Your task to perform on an android device: What's the weather going to be tomorrow? Image 0: 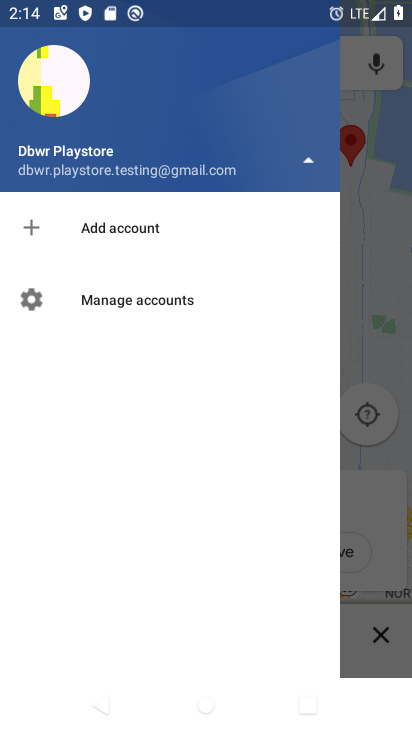
Step 0: press home button
Your task to perform on an android device: What's the weather going to be tomorrow? Image 1: 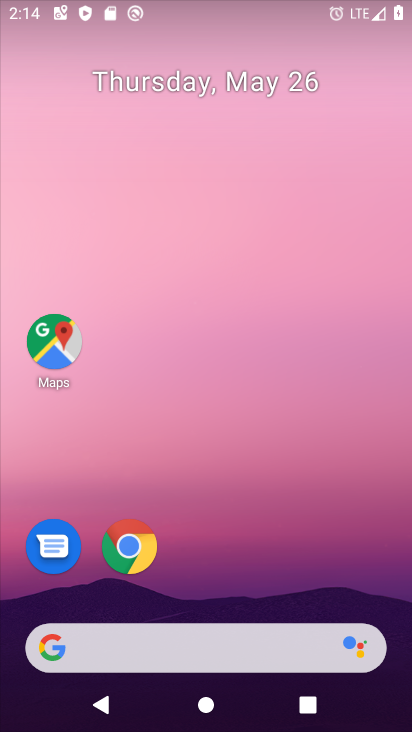
Step 1: drag from (245, 571) to (263, 84)
Your task to perform on an android device: What's the weather going to be tomorrow? Image 2: 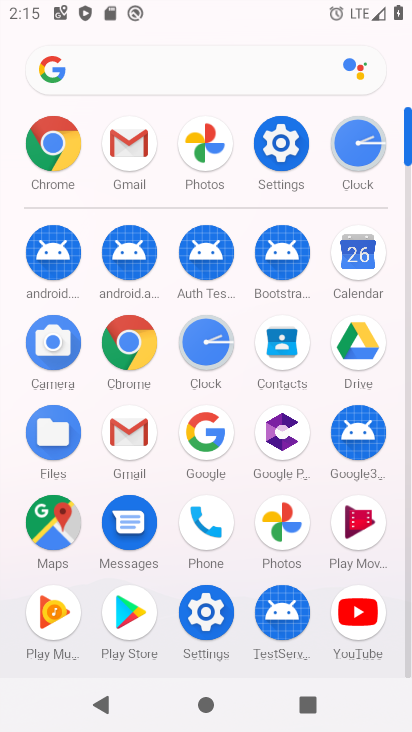
Step 2: click (209, 427)
Your task to perform on an android device: What's the weather going to be tomorrow? Image 3: 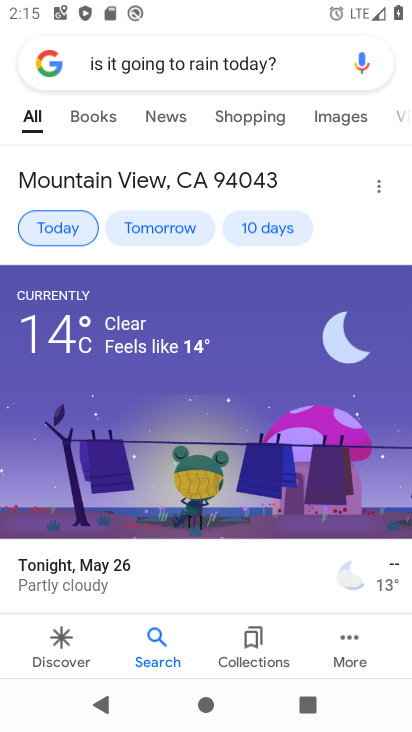
Step 3: click (292, 57)
Your task to perform on an android device: What's the weather going to be tomorrow? Image 4: 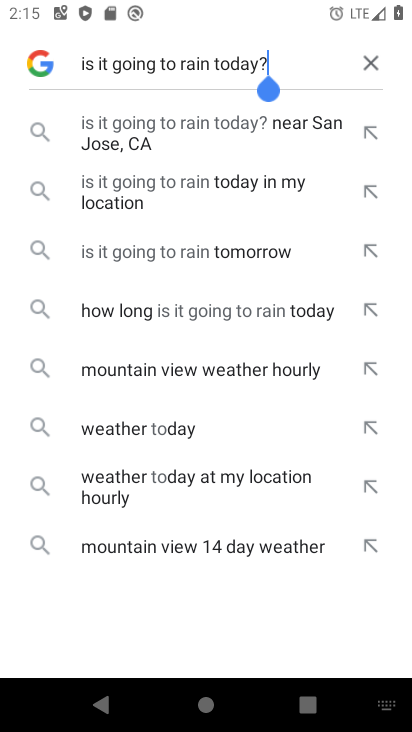
Step 4: click (375, 65)
Your task to perform on an android device: What's the weather going to be tomorrow? Image 5: 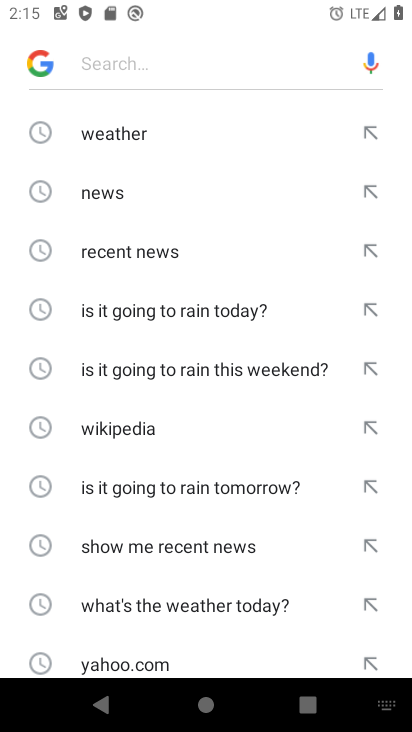
Step 5: drag from (212, 348) to (219, 104)
Your task to perform on an android device: What's the weather going to be tomorrow? Image 6: 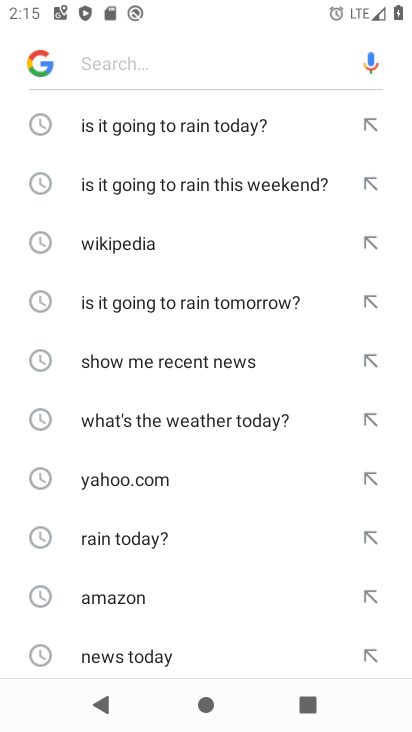
Step 6: drag from (182, 524) to (194, 143)
Your task to perform on an android device: What's the weather going to be tomorrow? Image 7: 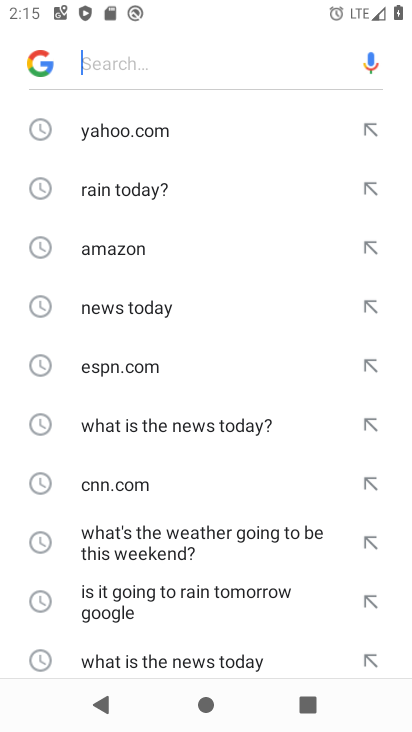
Step 7: drag from (257, 615) to (284, 22)
Your task to perform on an android device: What's the weather going to be tomorrow? Image 8: 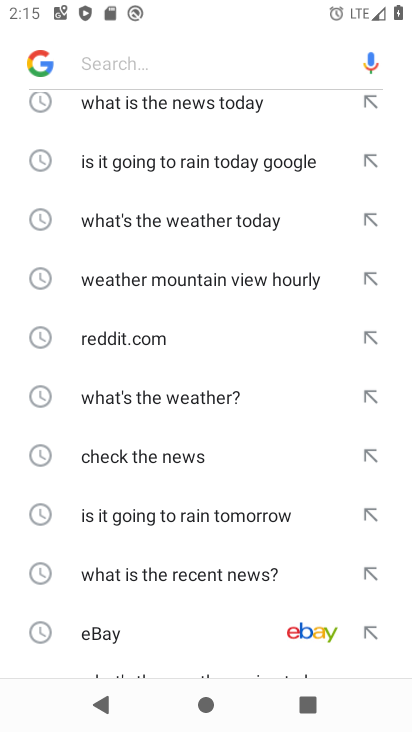
Step 8: drag from (224, 591) to (321, 48)
Your task to perform on an android device: What's the weather going to be tomorrow? Image 9: 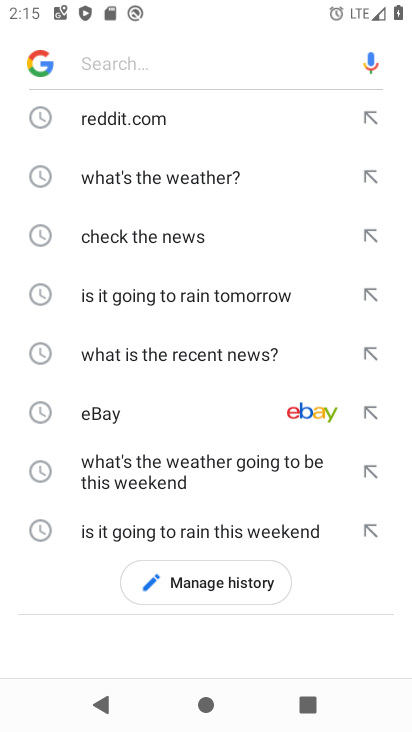
Step 9: type "weather tomorrow"
Your task to perform on an android device: What's the weather going to be tomorrow? Image 10: 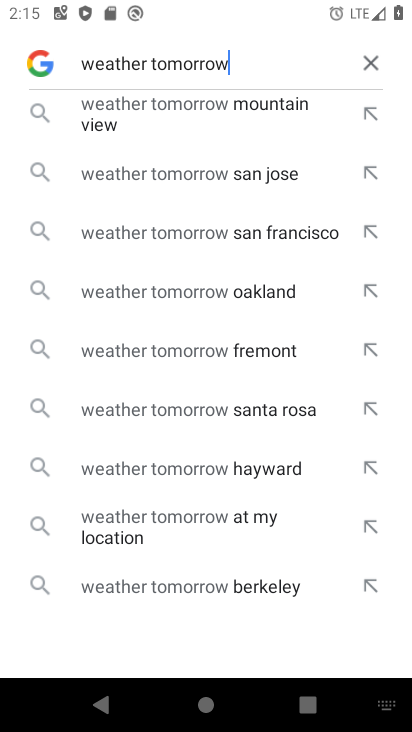
Step 10: click (366, 66)
Your task to perform on an android device: What's the weather going to be tomorrow? Image 11: 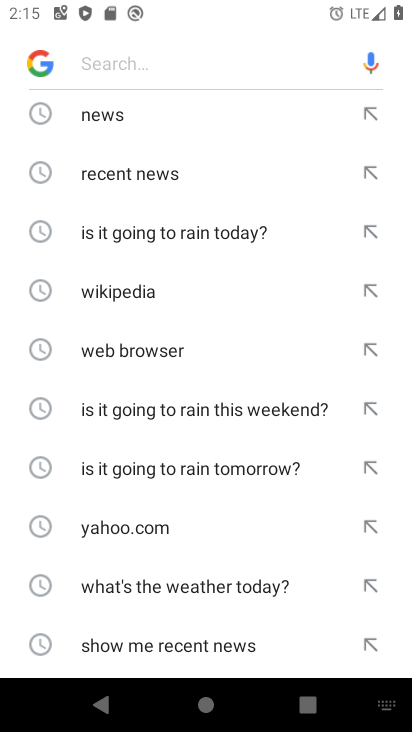
Step 11: type "whats the weather going to be tomorrow"
Your task to perform on an android device: What's the weather going to be tomorrow? Image 12: 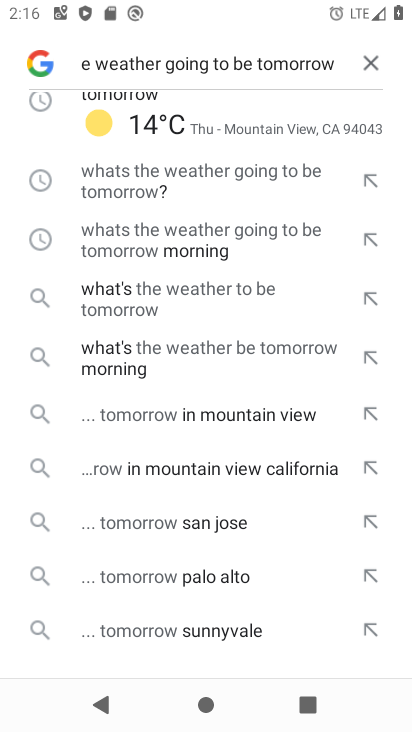
Step 12: drag from (172, 110) to (197, 361)
Your task to perform on an android device: What's the weather going to be tomorrow? Image 13: 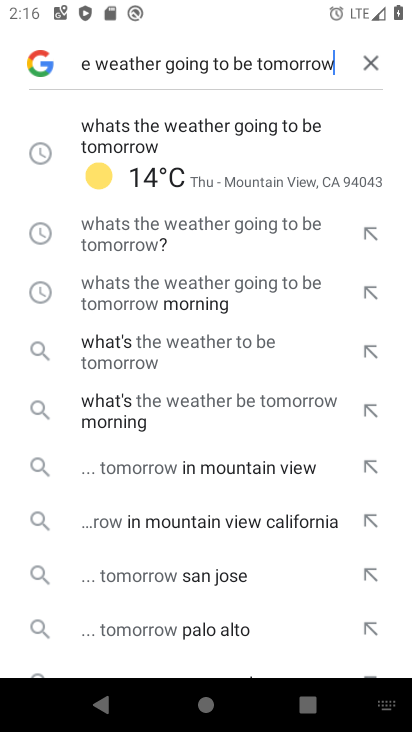
Step 13: click (152, 140)
Your task to perform on an android device: What's the weather going to be tomorrow? Image 14: 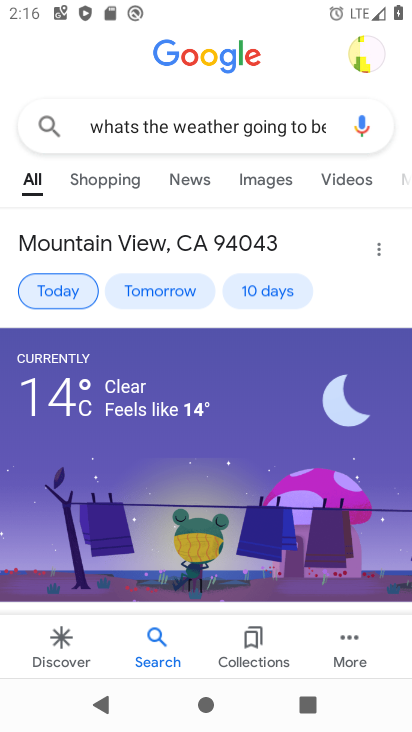
Step 14: click (172, 293)
Your task to perform on an android device: What's the weather going to be tomorrow? Image 15: 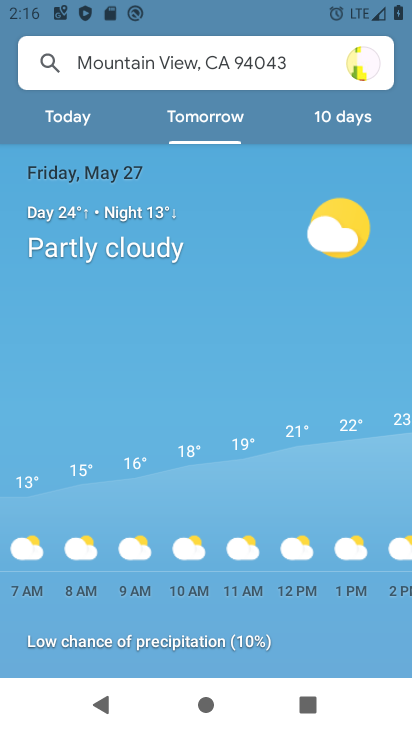
Step 15: task complete